Your task to perform on an android device: See recent photos Image 0: 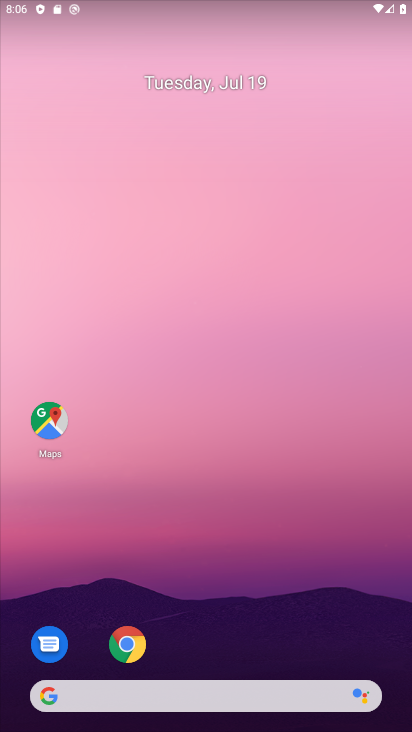
Step 0: drag from (219, 704) to (219, 163)
Your task to perform on an android device: See recent photos Image 1: 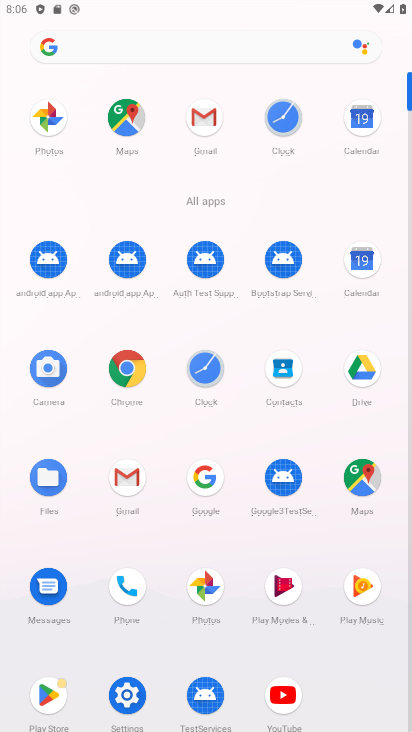
Step 1: click (206, 580)
Your task to perform on an android device: See recent photos Image 2: 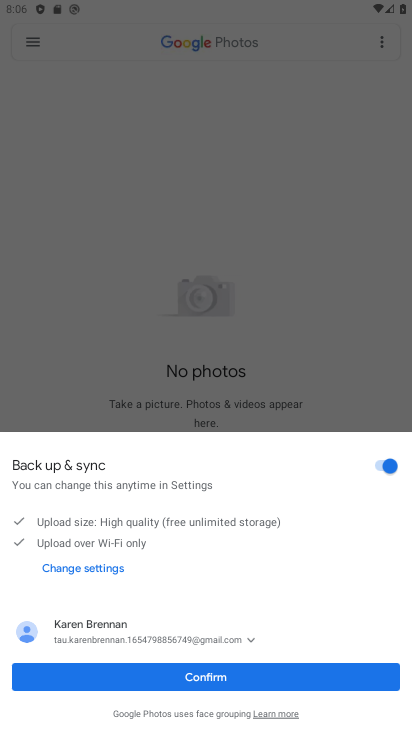
Step 2: click (253, 682)
Your task to perform on an android device: See recent photos Image 3: 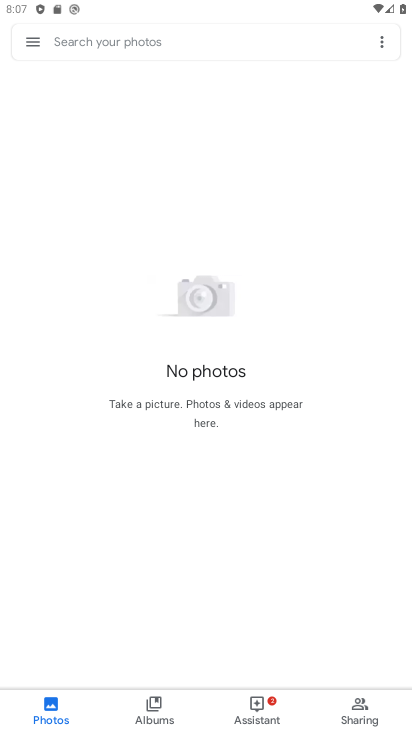
Step 3: task complete